Your task to perform on an android device: open chrome privacy settings Image 0: 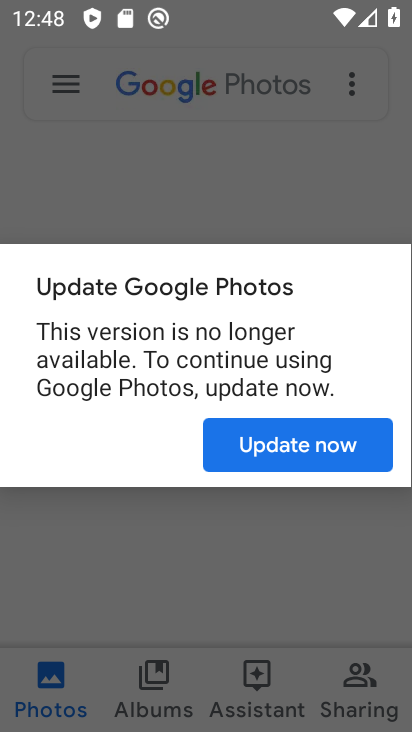
Step 0: press home button
Your task to perform on an android device: open chrome privacy settings Image 1: 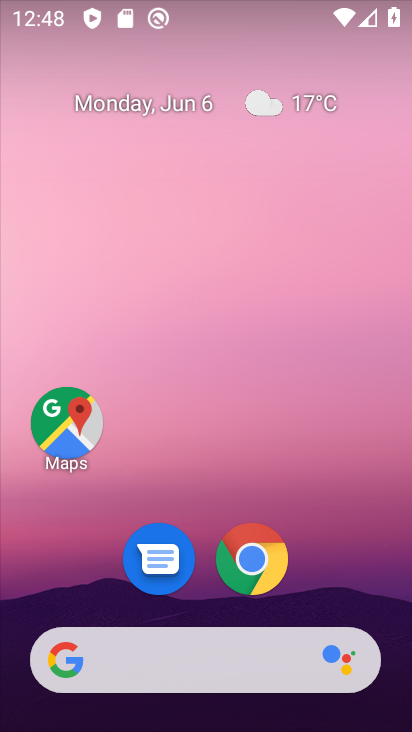
Step 1: drag from (205, 655) to (275, 111)
Your task to perform on an android device: open chrome privacy settings Image 2: 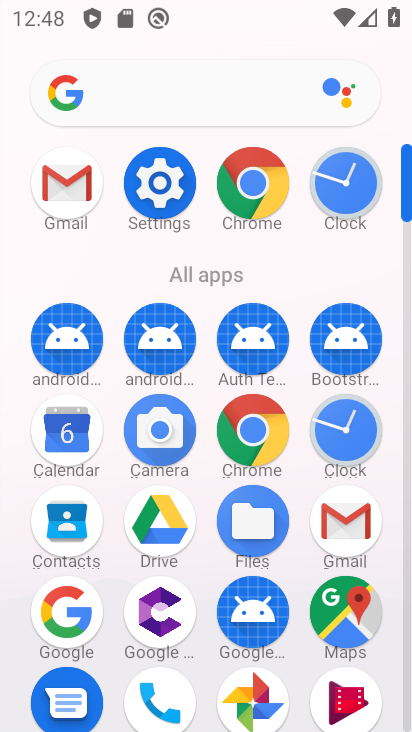
Step 2: click (263, 196)
Your task to perform on an android device: open chrome privacy settings Image 3: 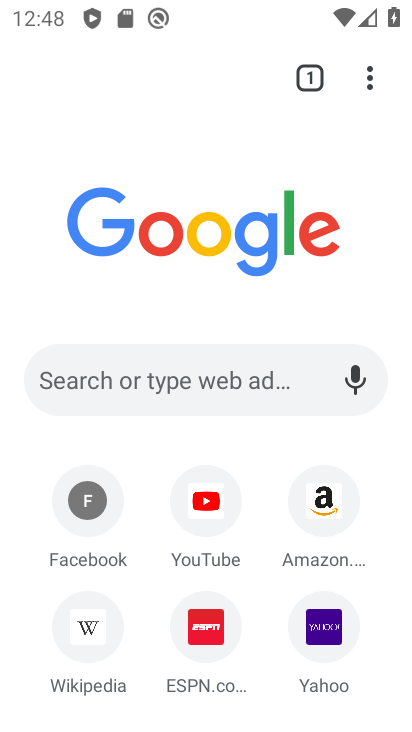
Step 3: click (363, 76)
Your task to perform on an android device: open chrome privacy settings Image 4: 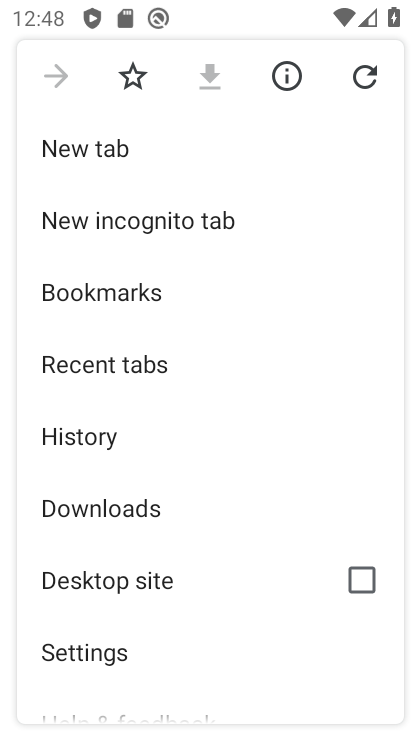
Step 4: drag from (170, 641) to (179, 358)
Your task to perform on an android device: open chrome privacy settings Image 5: 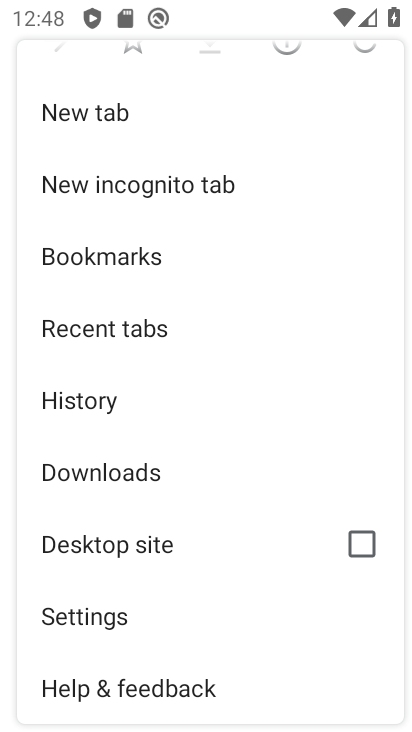
Step 5: click (102, 628)
Your task to perform on an android device: open chrome privacy settings Image 6: 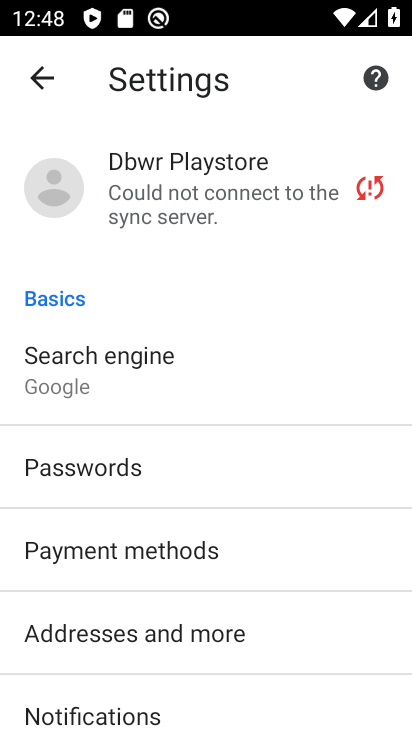
Step 6: drag from (230, 510) to (226, 369)
Your task to perform on an android device: open chrome privacy settings Image 7: 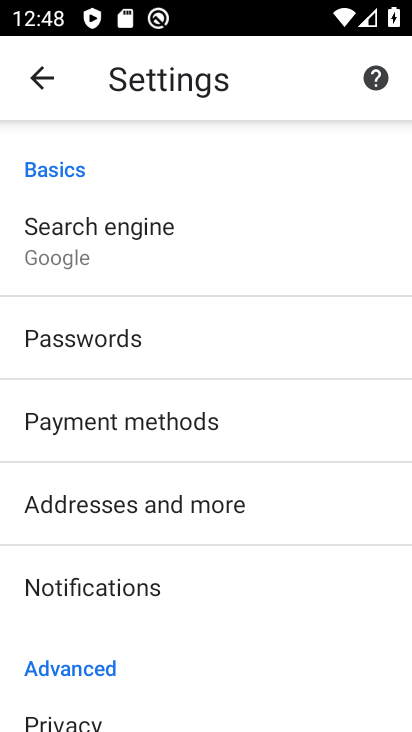
Step 7: drag from (207, 483) to (198, 261)
Your task to perform on an android device: open chrome privacy settings Image 8: 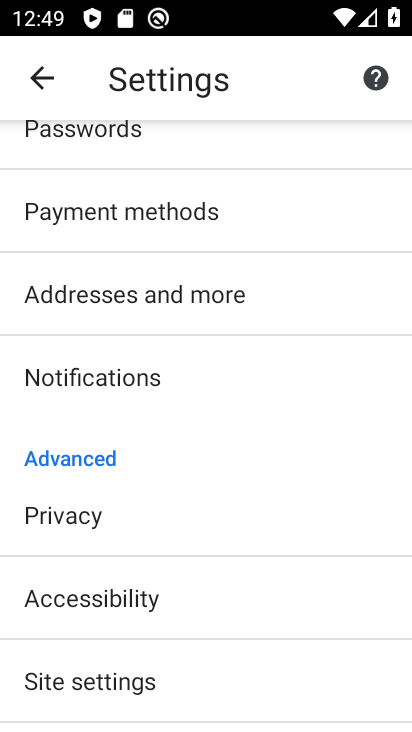
Step 8: drag from (150, 500) to (154, 363)
Your task to perform on an android device: open chrome privacy settings Image 9: 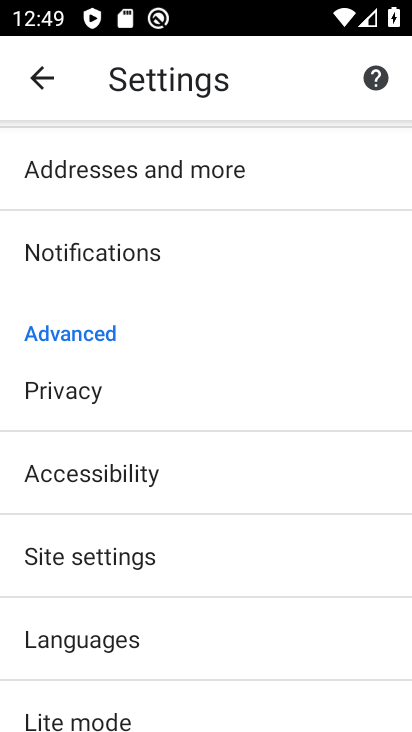
Step 9: click (126, 384)
Your task to perform on an android device: open chrome privacy settings Image 10: 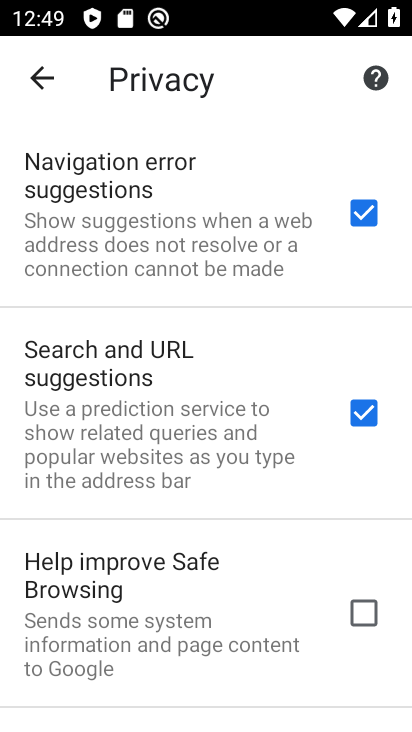
Step 10: task complete